Your task to perform on an android device: Go to ESPN.com Image 0: 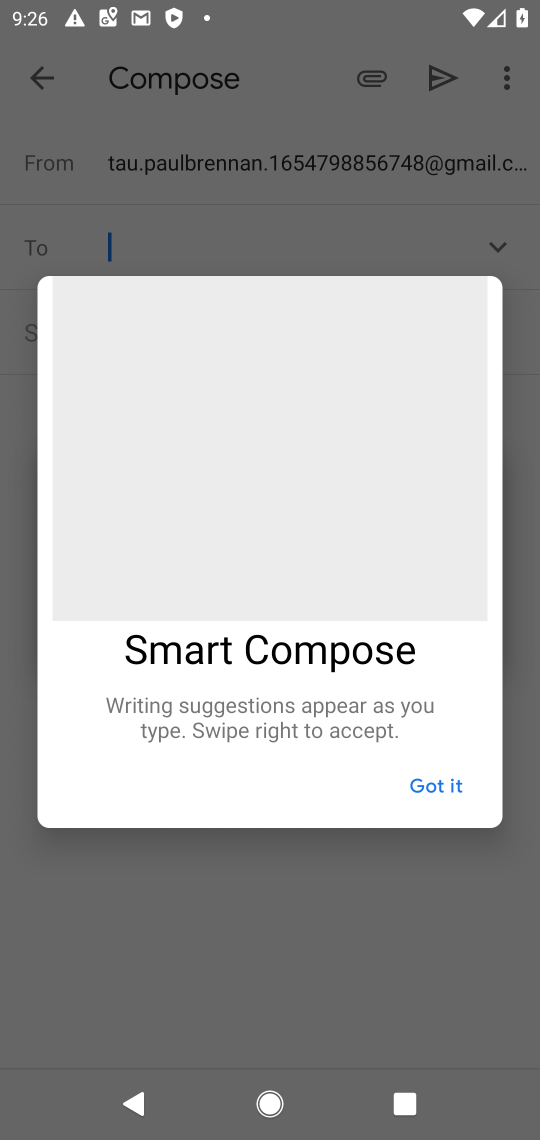
Step 0: press home button
Your task to perform on an android device: Go to ESPN.com Image 1: 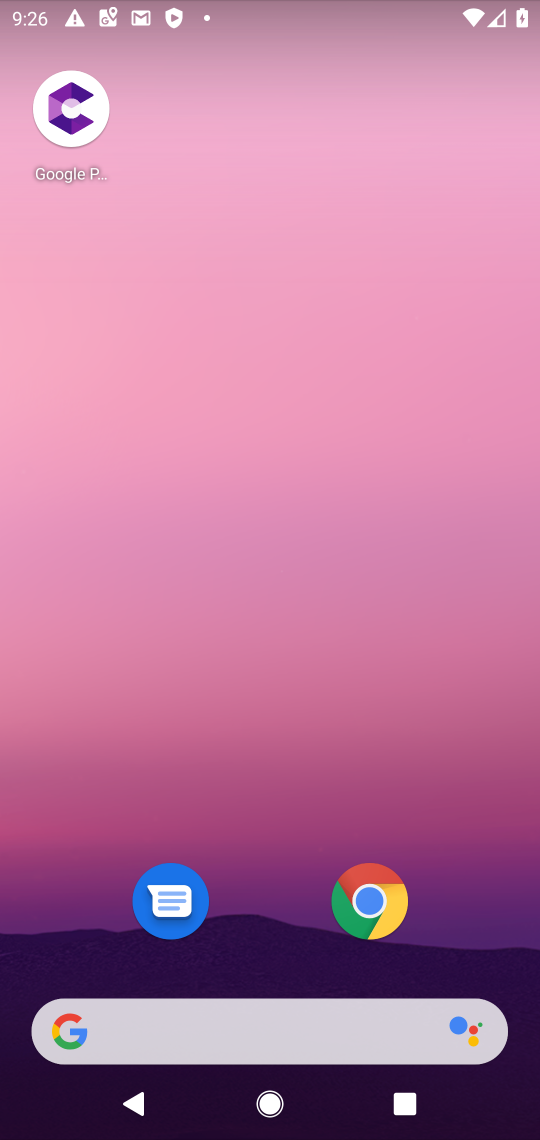
Step 1: drag from (257, 910) to (341, 258)
Your task to perform on an android device: Go to ESPN.com Image 2: 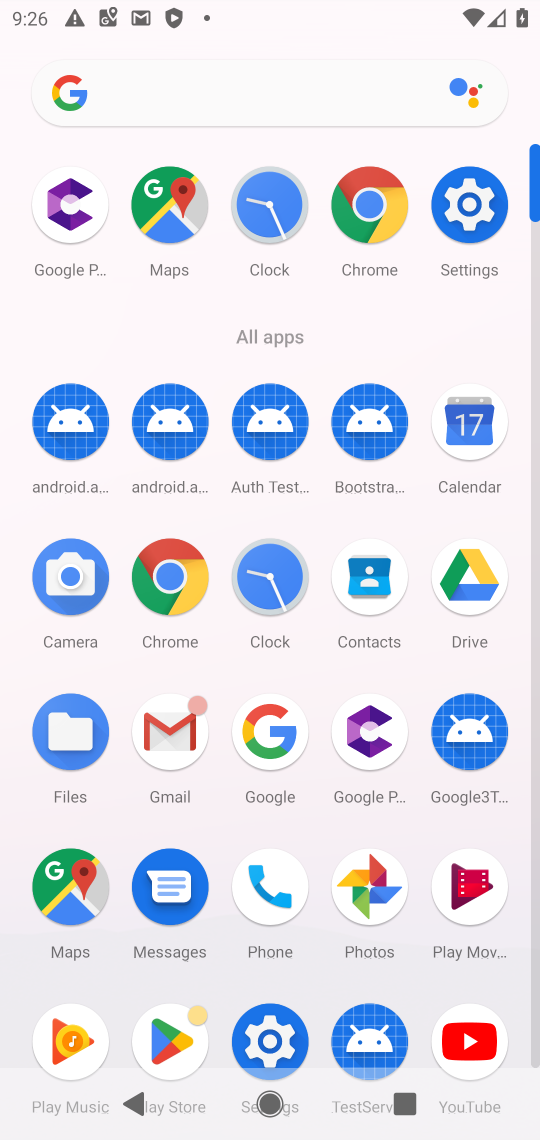
Step 2: click (175, 584)
Your task to perform on an android device: Go to ESPN.com Image 3: 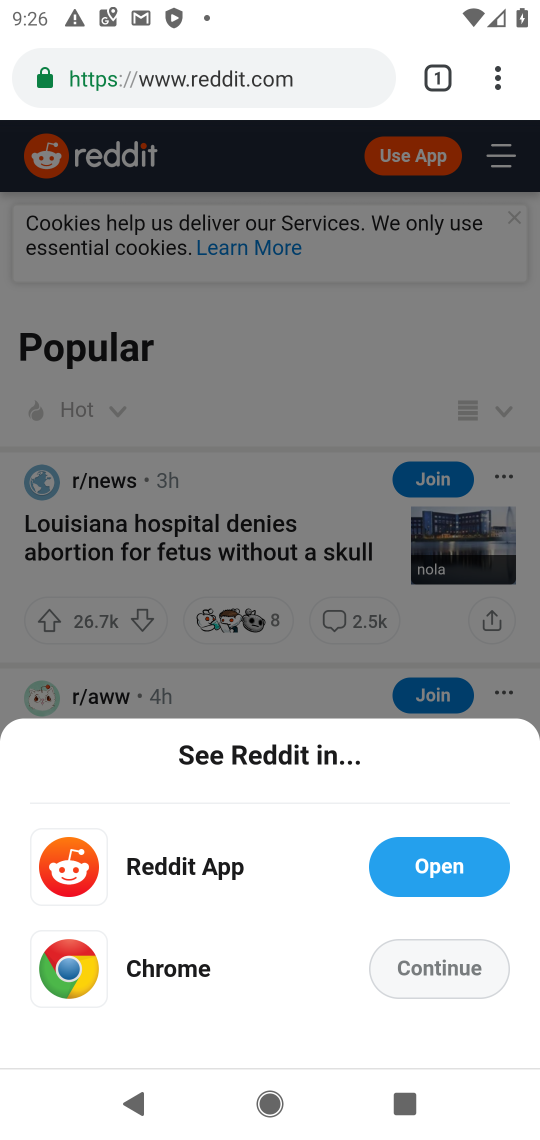
Step 3: click (339, 79)
Your task to perform on an android device: Go to ESPN.com Image 4: 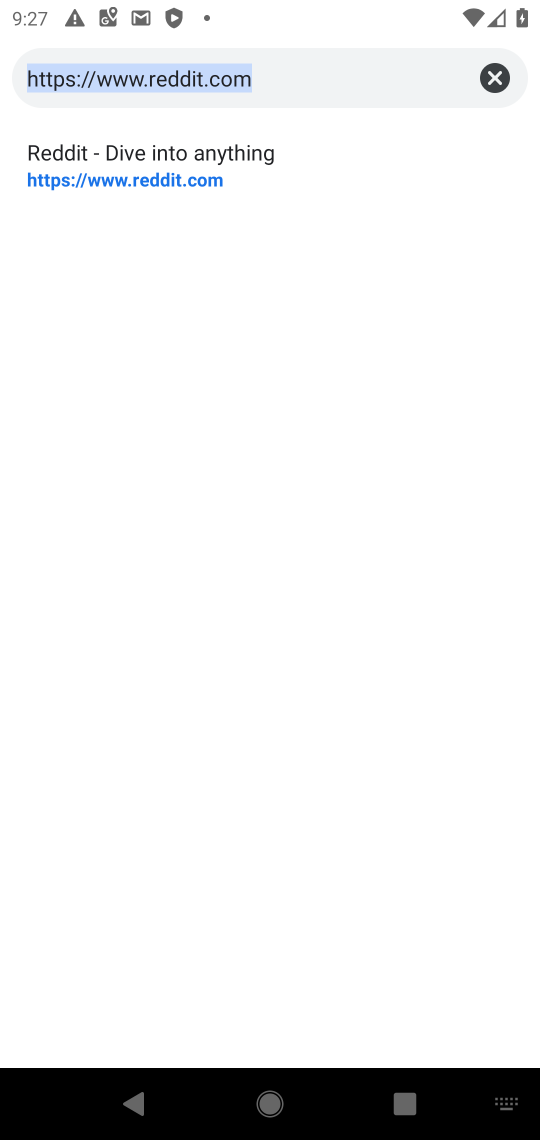
Step 4: type "espn.com"
Your task to perform on an android device: Go to ESPN.com Image 5: 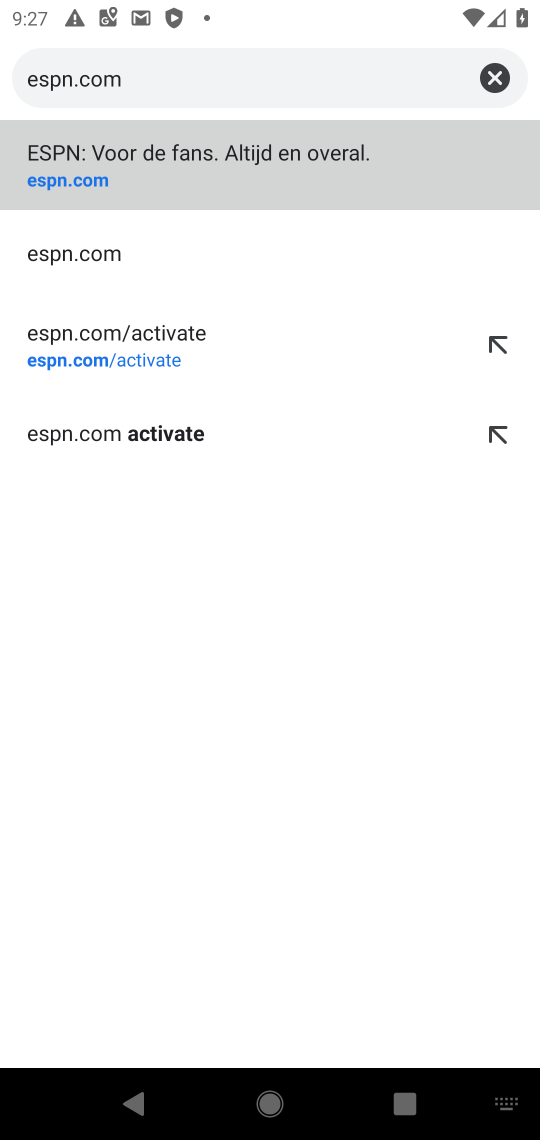
Step 5: click (72, 173)
Your task to perform on an android device: Go to ESPN.com Image 6: 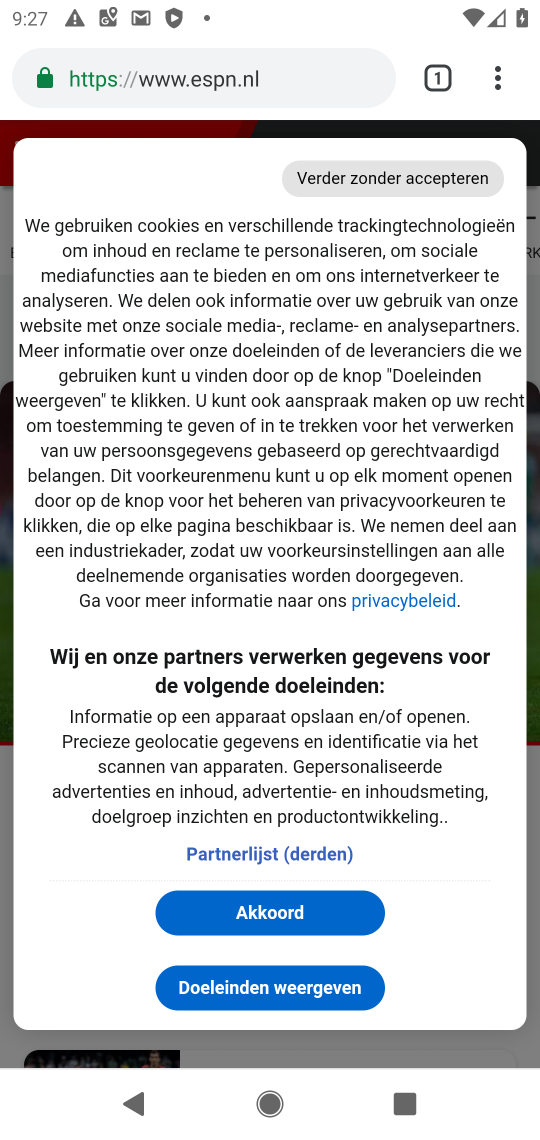
Step 6: task complete